Your task to perform on an android device: open a bookmark in the chrome app Image 0: 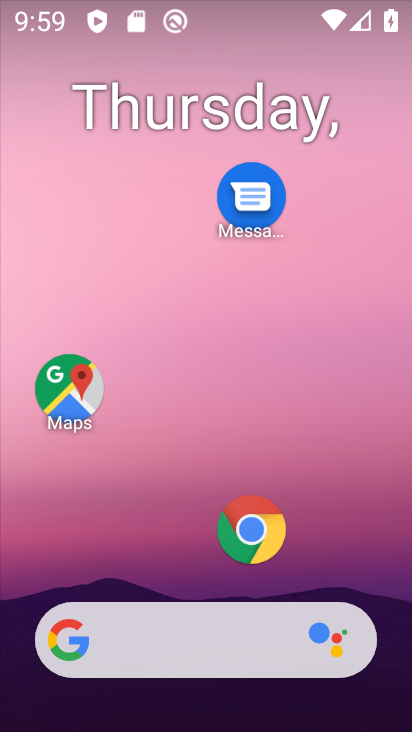
Step 0: click (250, 528)
Your task to perform on an android device: open a bookmark in the chrome app Image 1: 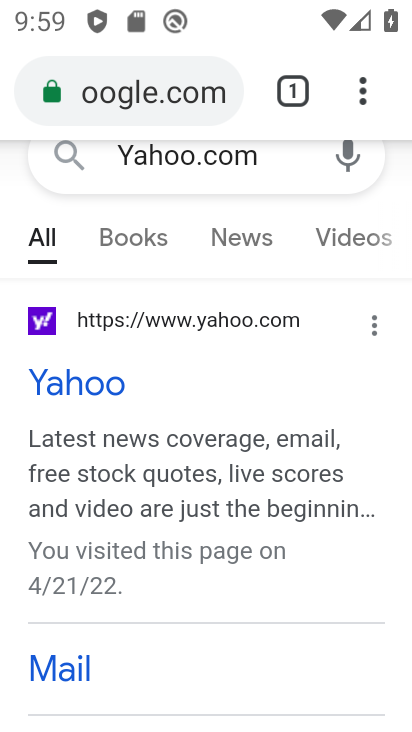
Step 1: click (363, 92)
Your task to perform on an android device: open a bookmark in the chrome app Image 2: 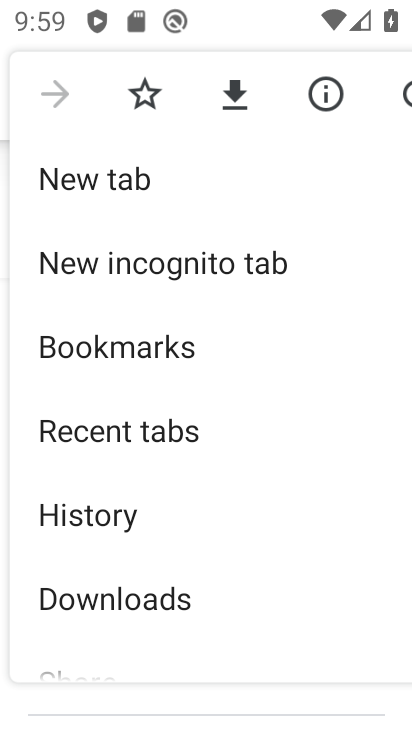
Step 2: click (164, 349)
Your task to perform on an android device: open a bookmark in the chrome app Image 3: 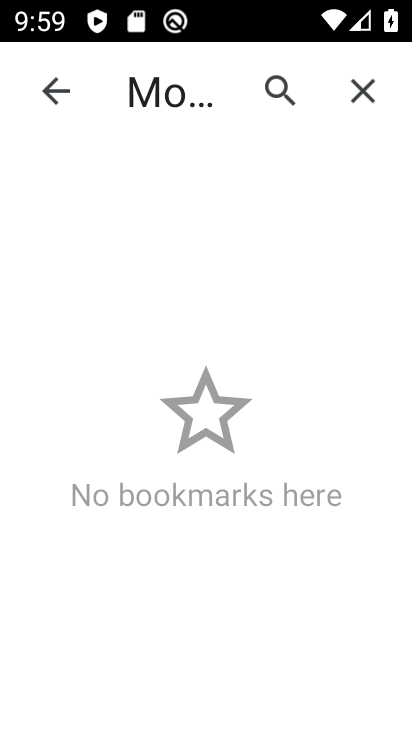
Step 3: task complete